Your task to perform on an android device: Find coffee shops on Maps Image 0: 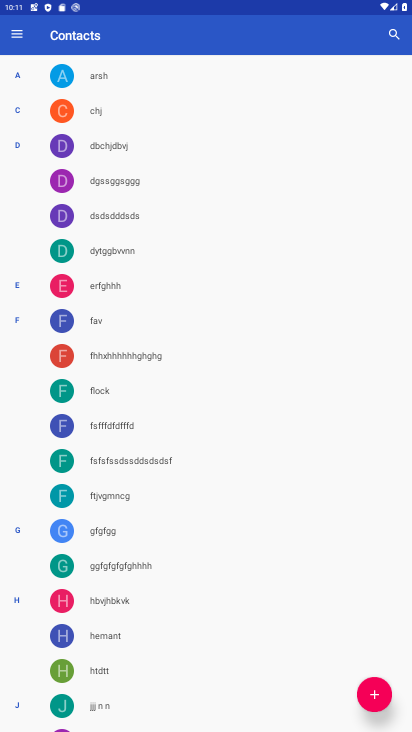
Step 0: press home button
Your task to perform on an android device: Find coffee shops on Maps Image 1: 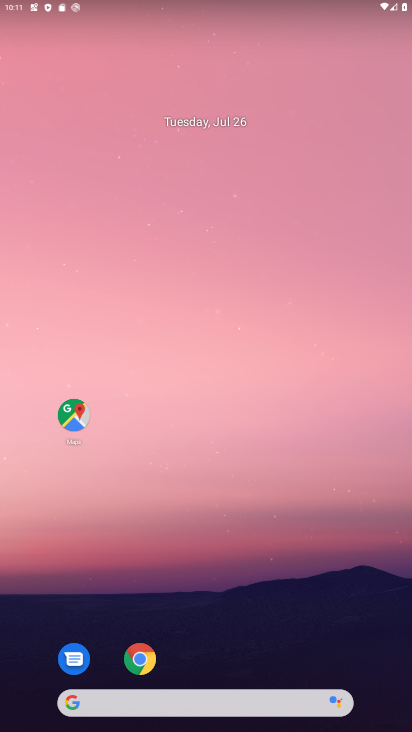
Step 1: drag from (390, 687) to (381, 218)
Your task to perform on an android device: Find coffee shops on Maps Image 2: 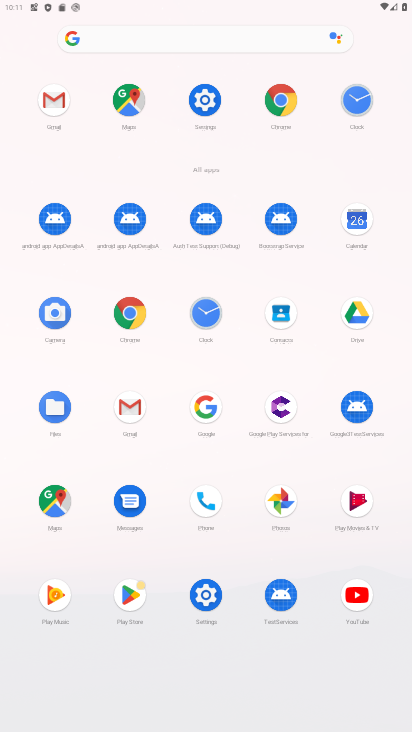
Step 2: click (111, 96)
Your task to perform on an android device: Find coffee shops on Maps Image 3: 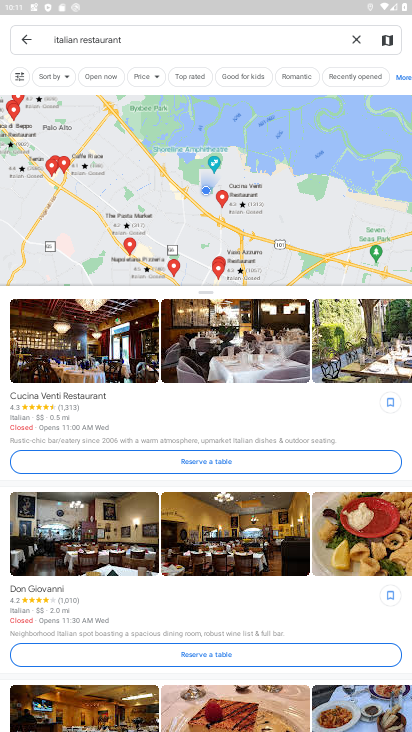
Step 3: click (352, 34)
Your task to perform on an android device: Find coffee shops on Maps Image 4: 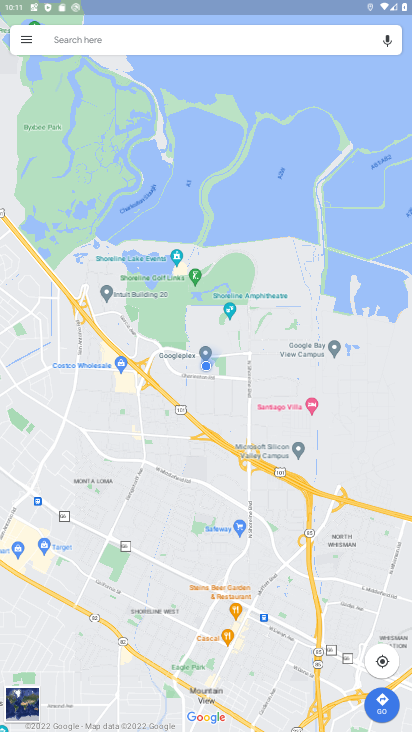
Step 4: click (71, 41)
Your task to perform on an android device: Find coffee shops on Maps Image 5: 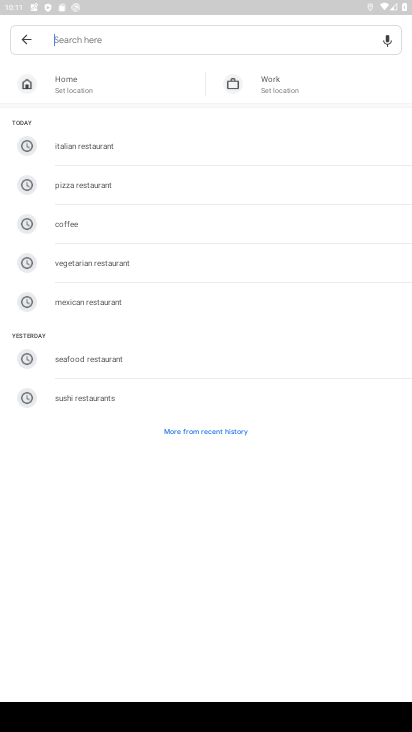
Step 5: type "coffee shops"
Your task to perform on an android device: Find coffee shops on Maps Image 6: 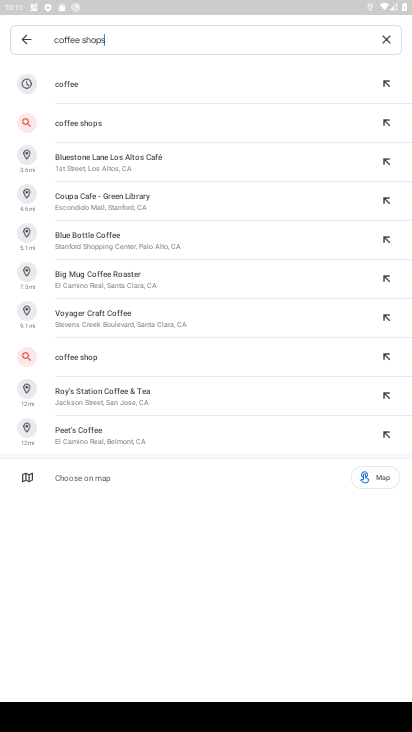
Step 6: click (62, 120)
Your task to perform on an android device: Find coffee shops on Maps Image 7: 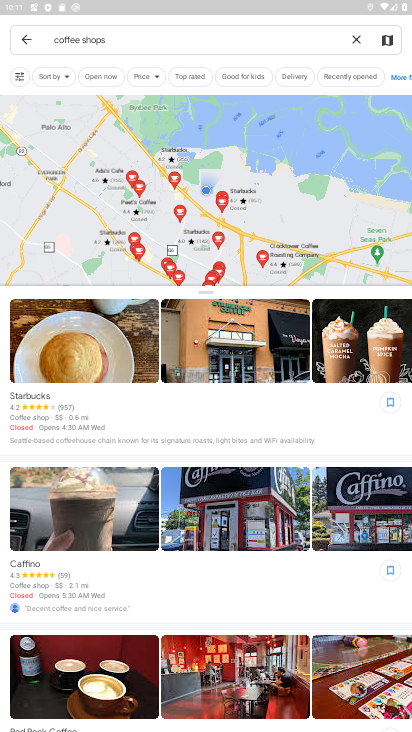
Step 7: task complete